Your task to perform on an android device: Go to Amazon Image 0: 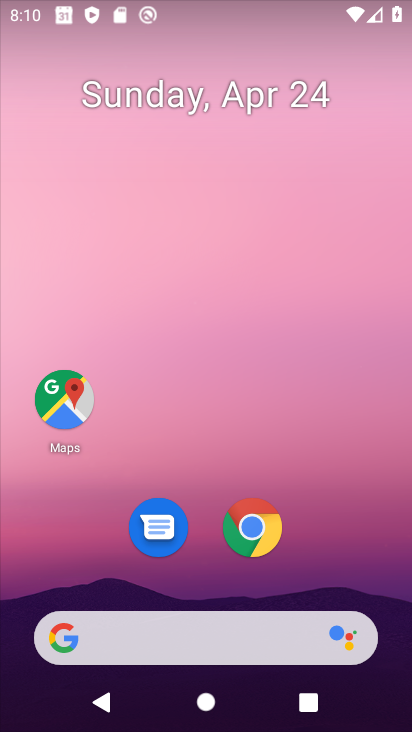
Step 0: click (357, 0)
Your task to perform on an android device: Go to Amazon Image 1: 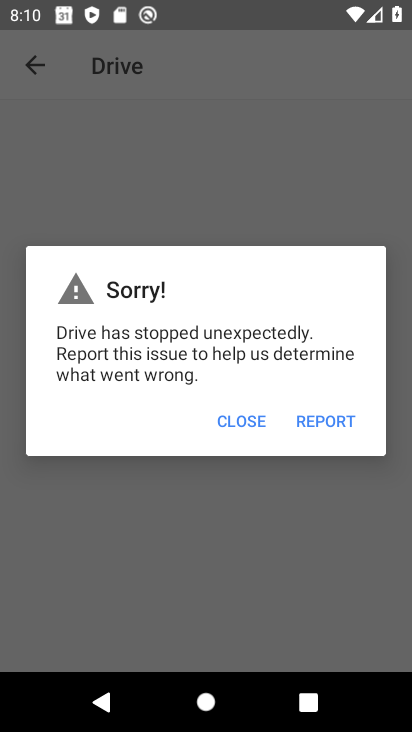
Step 1: press home button
Your task to perform on an android device: Go to Amazon Image 2: 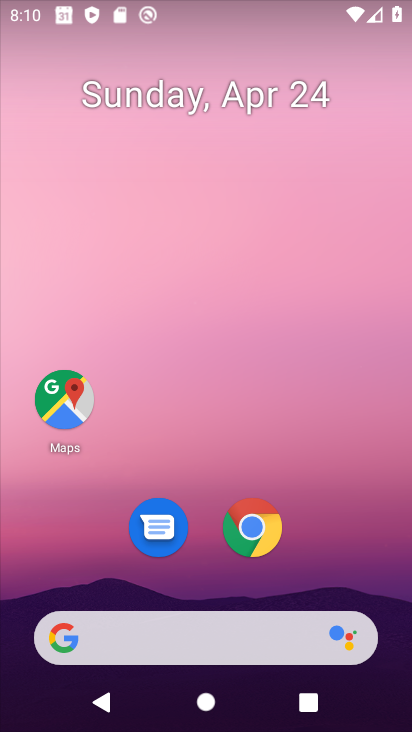
Step 2: click (366, 559)
Your task to perform on an android device: Go to Amazon Image 3: 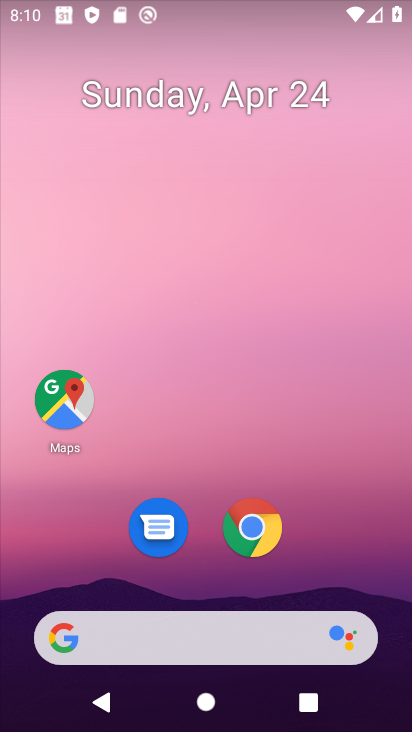
Step 3: click (259, 537)
Your task to perform on an android device: Go to Amazon Image 4: 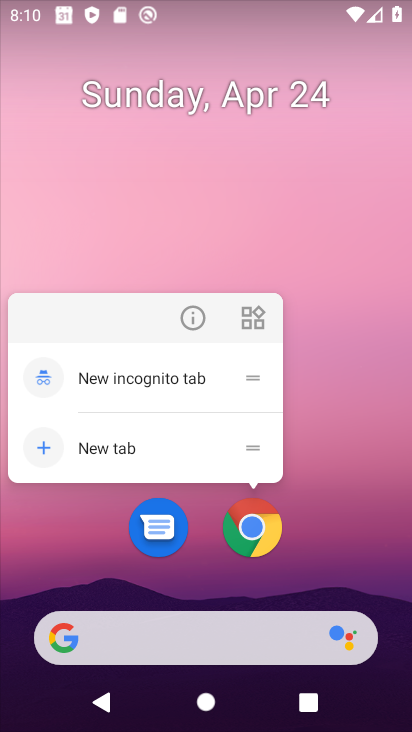
Step 4: click (255, 527)
Your task to perform on an android device: Go to Amazon Image 5: 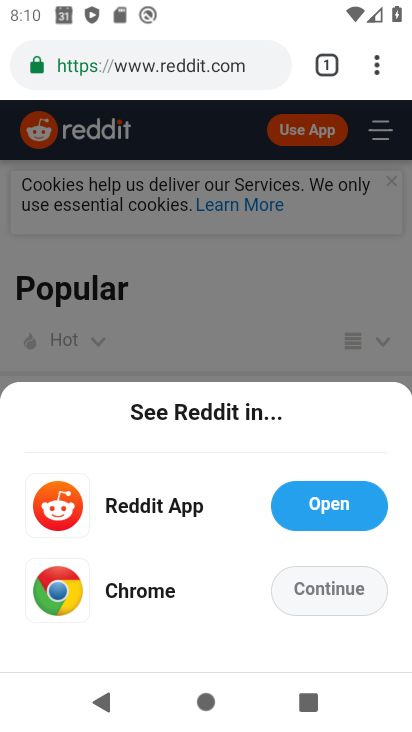
Step 5: click (164, 73)
Your task to perform on an android device: Go to Amazon Image 6: 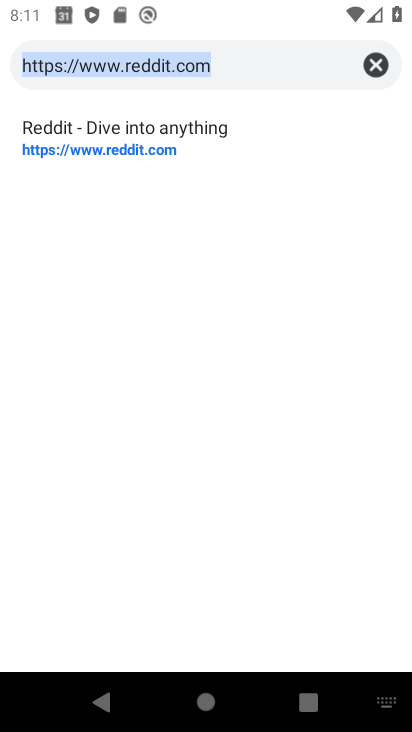
Step 6: click (364, 62)
Your task to perform on an android device: Go to Amazon Image 7: 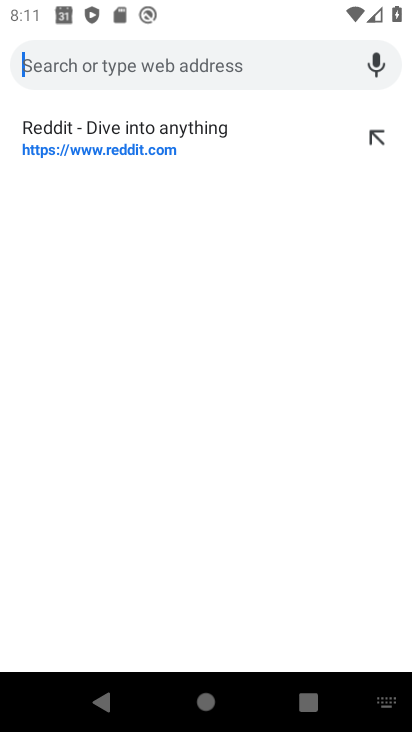
Step 7: click (89, 68)
Your task to perform on an android device: Go to Amazon Image 8: 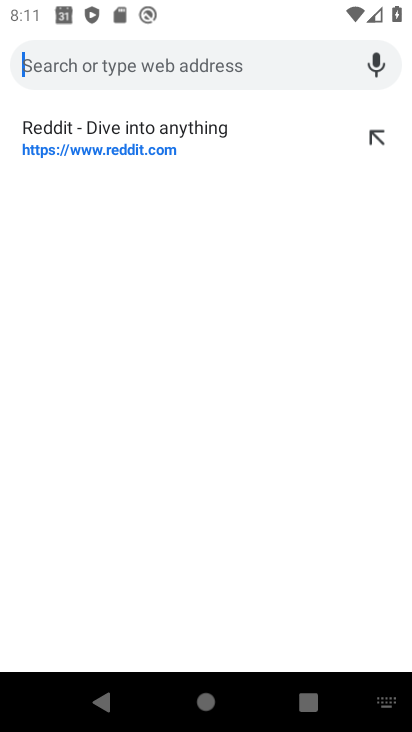
Step 8: type "amazon"
Your task to perform on an android device: Go to Amazon Image 9: 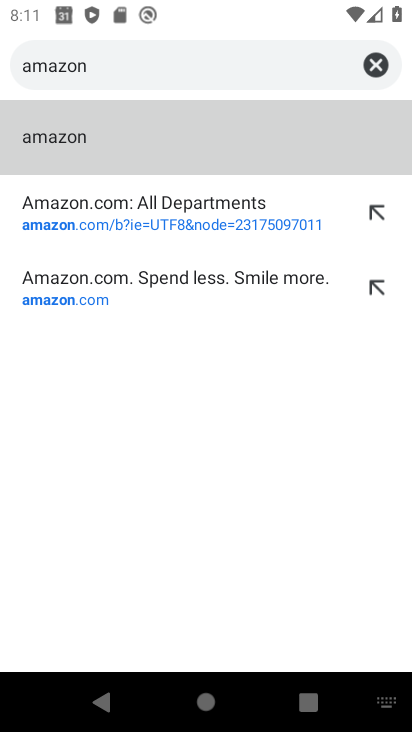
Step 9: click (61, 139)
Your task to perform on an android device: Go to Amazon Image 10: 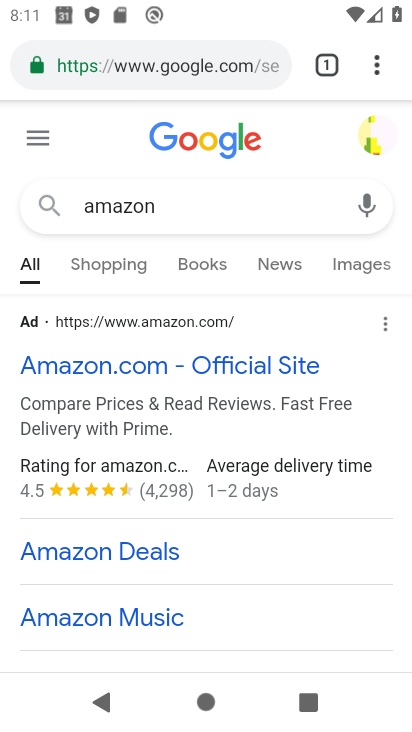
Step 10: click (53, 370)
Your task to perform on an android device: Go to Amazon Image 11: 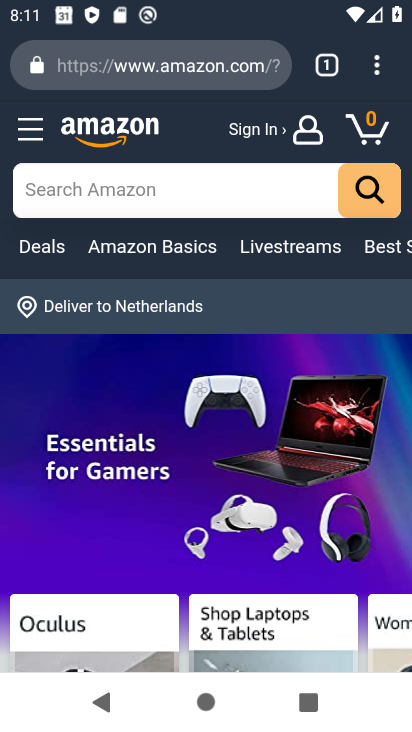
Step 11: task complete